Your task to perform on an android device: add a contact Image 0: 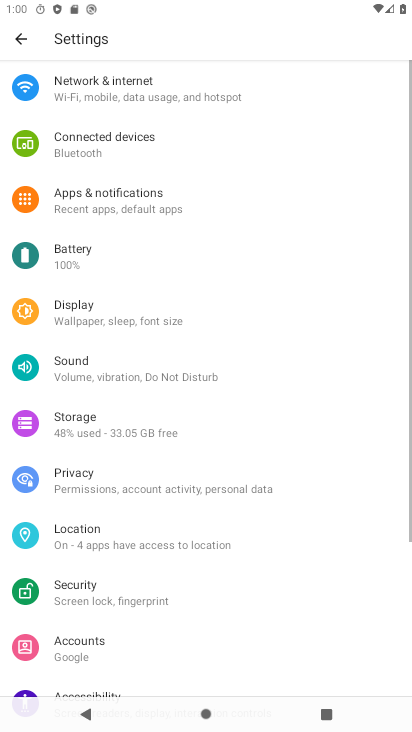
Step 0: press home button
Your task to perform on an android device: add a contact Image 1: 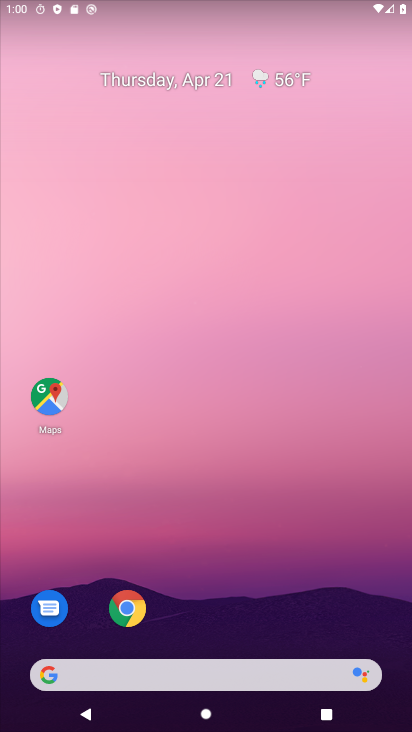
Step 1: drag from (256, 611) to (253, 187)
Your task to perform on an android device: add a contact Image 2: 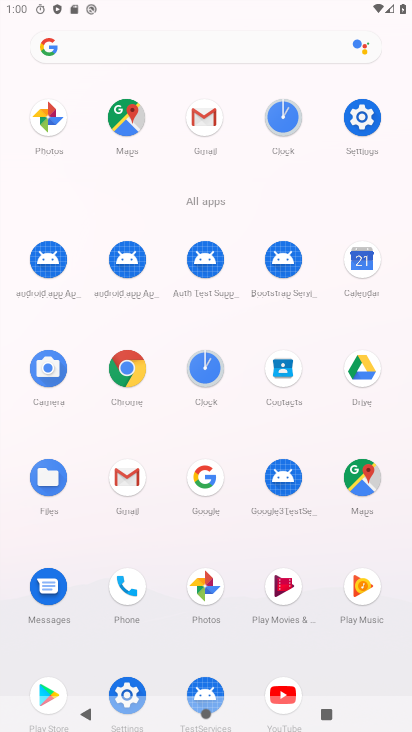
Step 2: click (283, 372)
Your task to perform on an android device: add a contact Image 3: 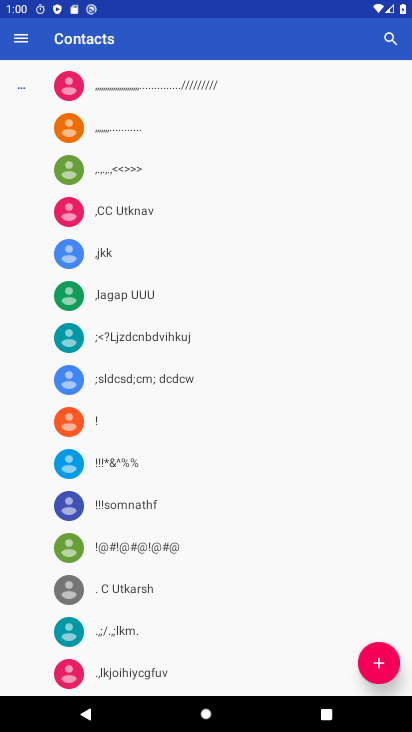
Step 3: click (375, 665)
Your task to perform on an android device: add a contact Image 4: 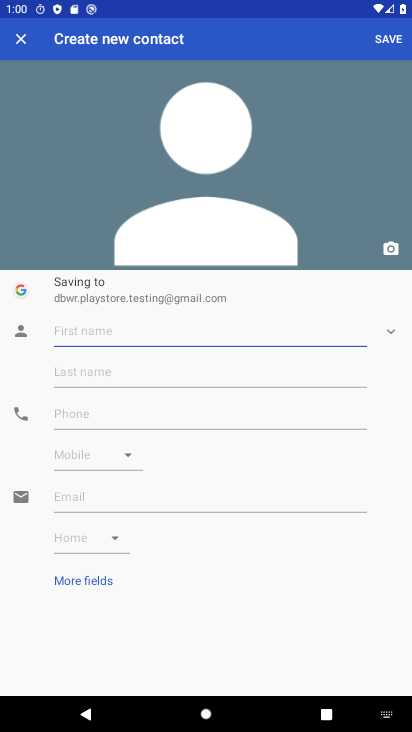
Step 4: click (263, 333)
Your task to perform on an android device: add a contact Image 5: 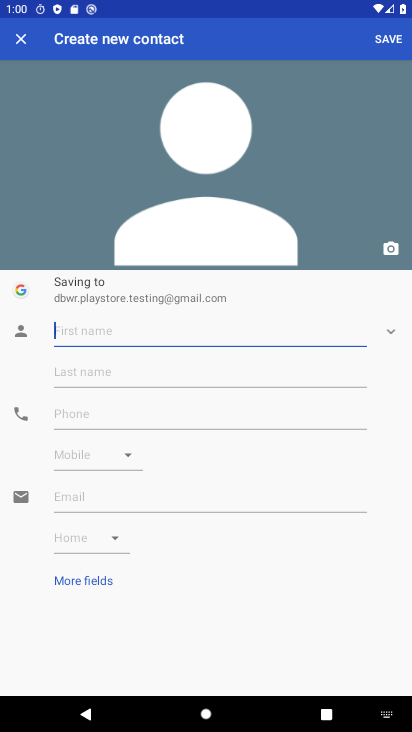
Step 5: type "ERTFDFG"
Your task to perform on an android device: add a contact Image 6: 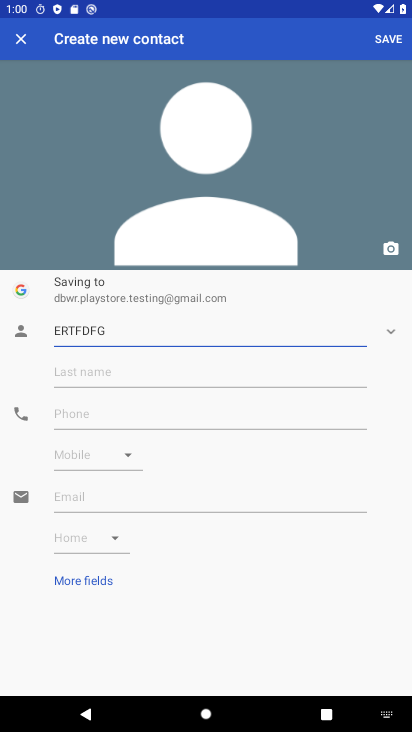
Step 6: click (107, 417)
Your task to perform on an android device: add a contact Image 7: 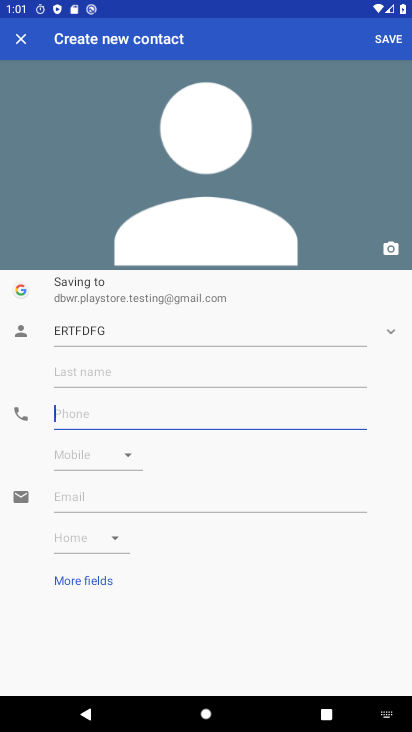
Step 7: type "0987654567"
Your task to perform on an android device: add a contact Image 8: 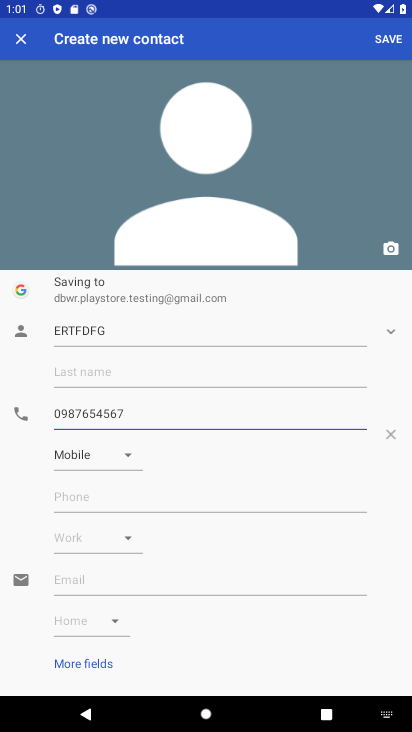
Step 8: click (390, 37)
Your task to perform on an android device: add a contact Image 9: 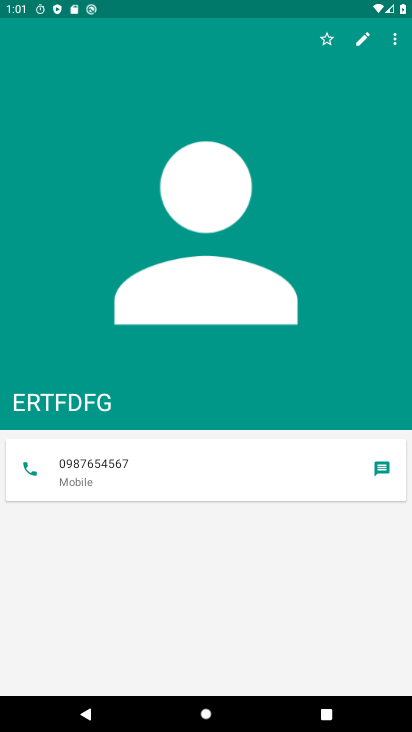
Step 9: task complete